Your task to perform on an android device: see creations saved in the google photos Image 0: 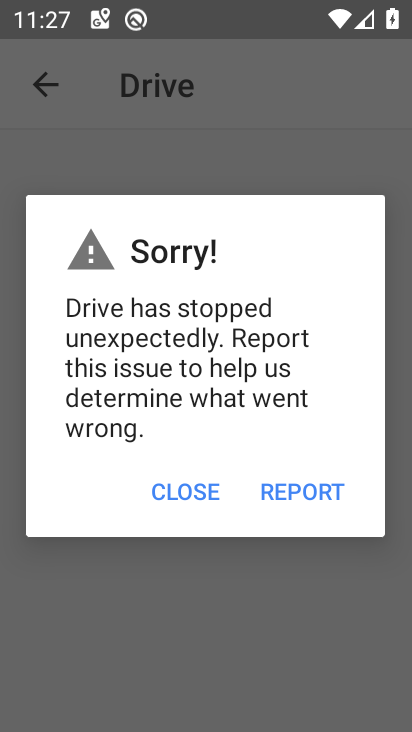
Step 0: press home button
Your task to perform on an android device: see creations saved in the google photos Image 1: 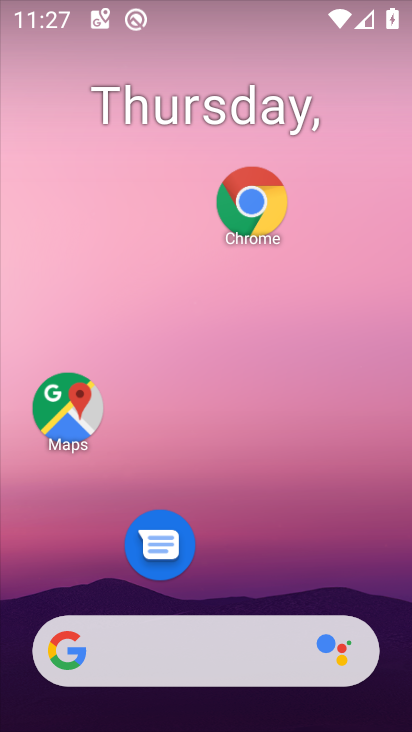
Step 1: drag from (231, 542) to (220, 6)
Your task to perform on an android device: see creations saved in the google photos Image 2: 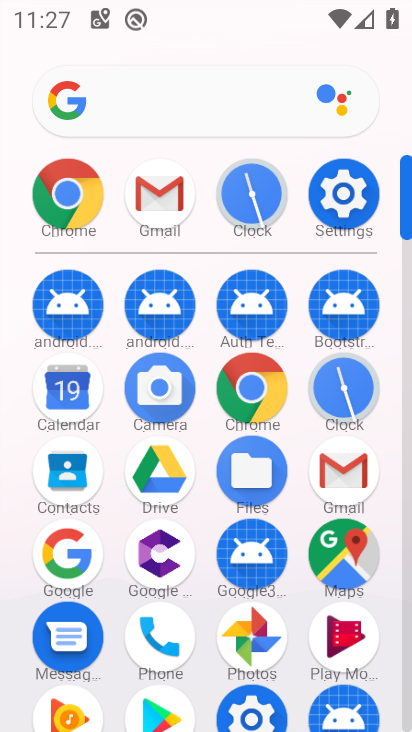
Step 2: click (263, 651)
Your task to perform on an android device: see creations saved in the google photos Image 3: 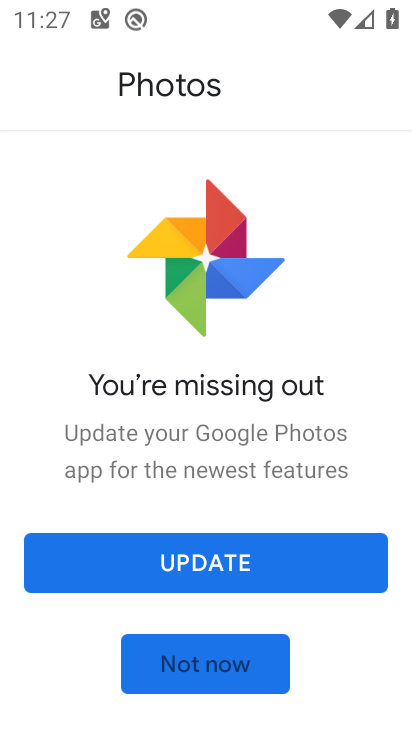
Step 3: click (252, 666)
Your task to perform on an android device: see creations saved in the google photos Image 4: 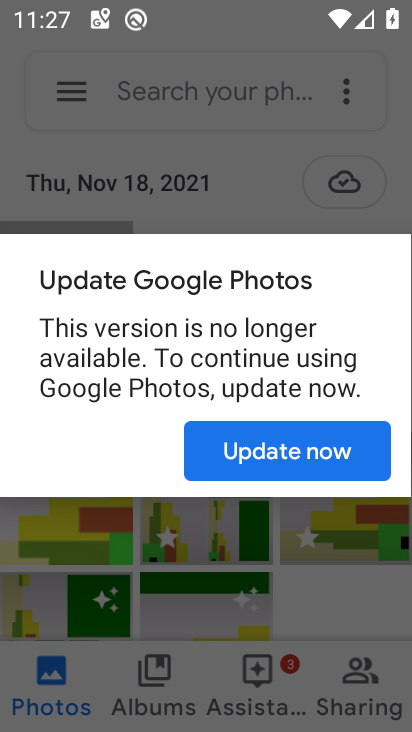
Step 4: click (231, 438)
Your task to perform on an android device: see creations saved in the google photos Image 5: 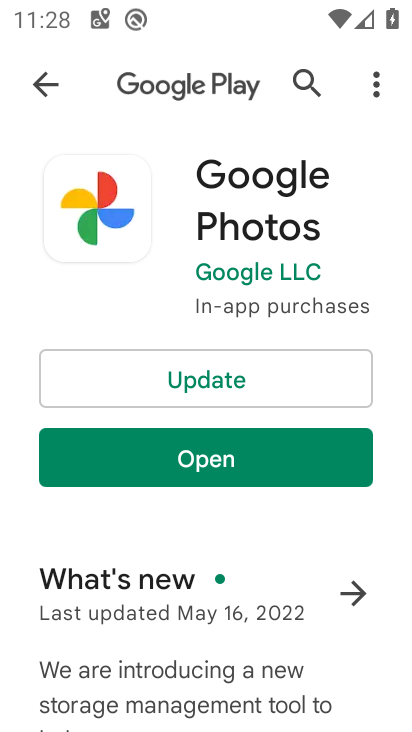
Step 5: click (199, 465)
Your task to perform on an android device: see creations saved in the google photos Image 6: 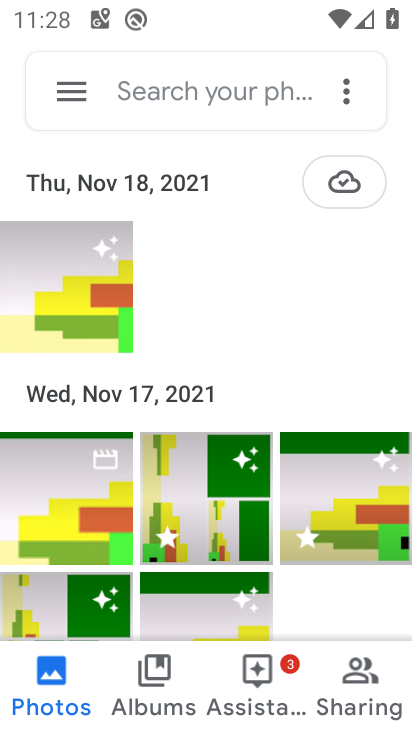
Step 6: click (194, 81)
Your task to perform on an android device: see creations saved in the google photos Image 7: 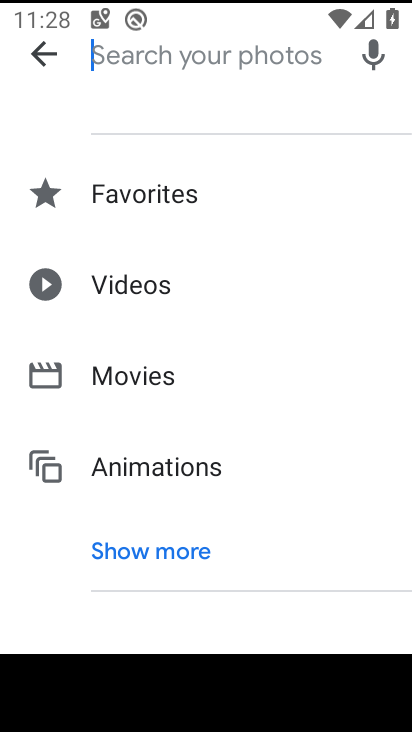
Step 7: click (145, 547)
Your task to perform on an android device: see creations saved in the google photos Image 8: 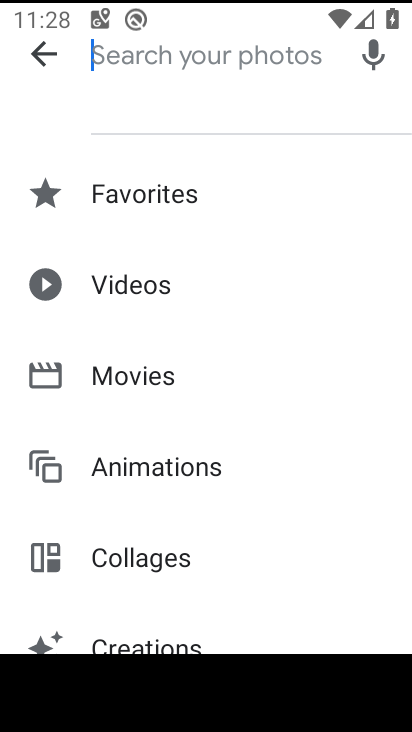
Step 8: click (112, 640)
Your task to perform on an android device: see creations saved in the google photos Image 9: 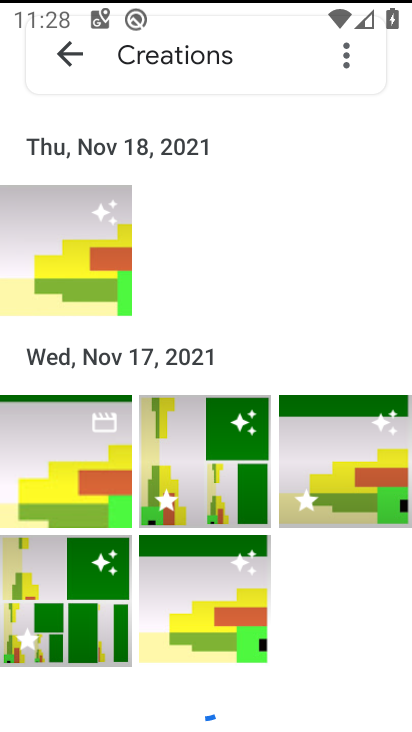
Step 9: task complete